Your task to perform on an android device: change alarm snooze length Image 0: 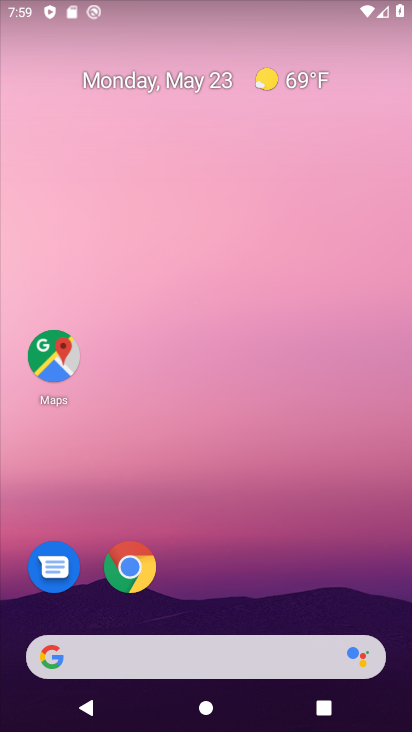
Step 0: drag from (228, 640) to (259, 2)
Your task to perform on an android device: change alarm snooze length Image 1: 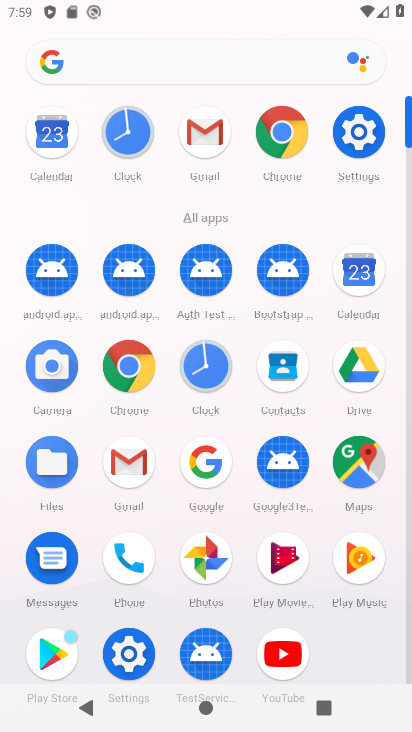
Step 1: click (209, 376)
Your task to perform on an android device: change alarm snooze length Image 2: 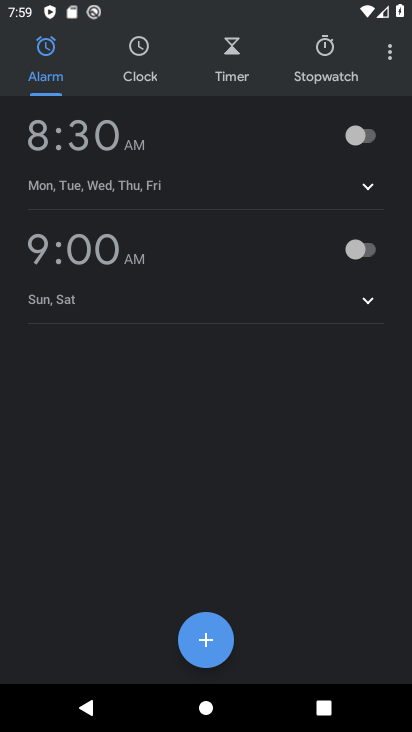
Step 2: click (387, 50)
Your task to perform on an android device: change alarm snooze length Image 3: 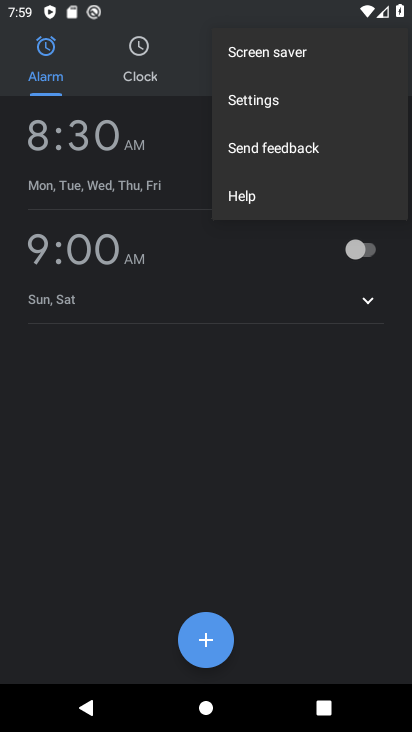
Step 3: click (267, 104)
Your task to perform on an android device: change alarm snooze length Image 4: 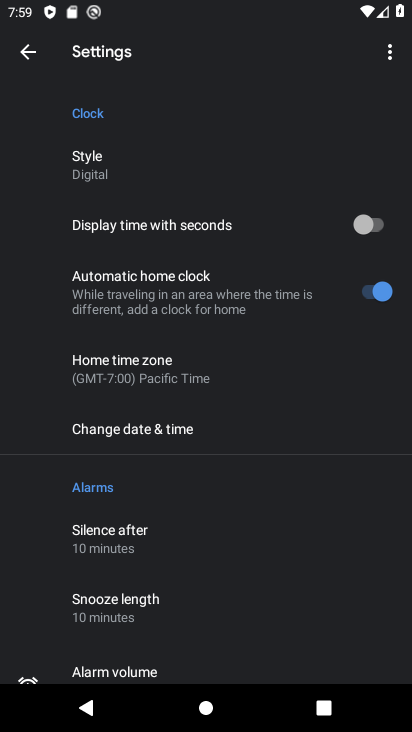
Step 4: drag from (129, 562) to (129, 431)
Your task to perform on an android device: change alarm snooze length Image 5: 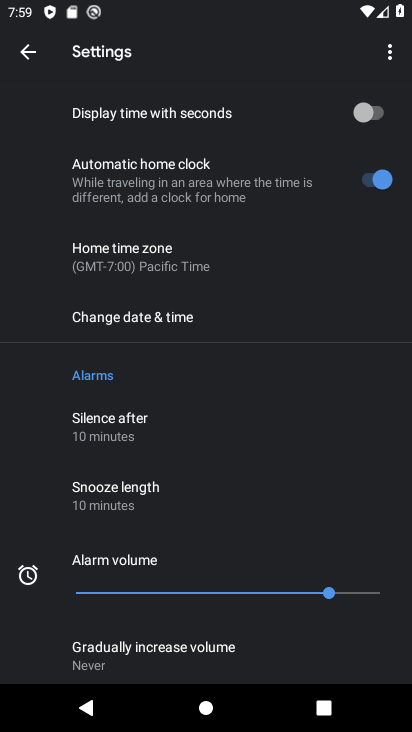
Step 5: click (123, 503)
Your task to perform on an android device: change alarm snooze length Image 6: 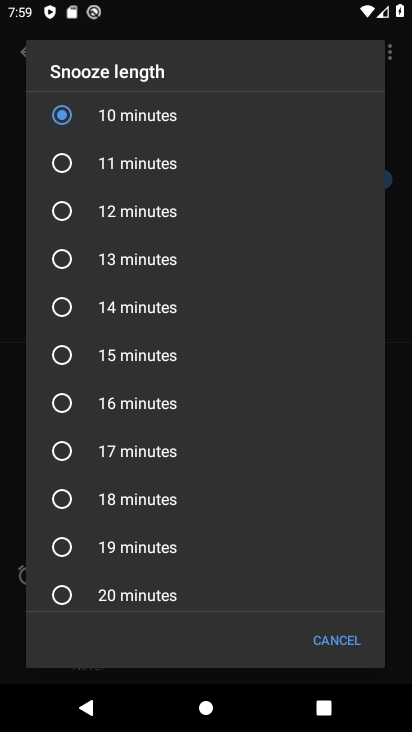
Step 6: click (117, 457)
Your task to perform on an android device: change alarm snooze length Image 7: 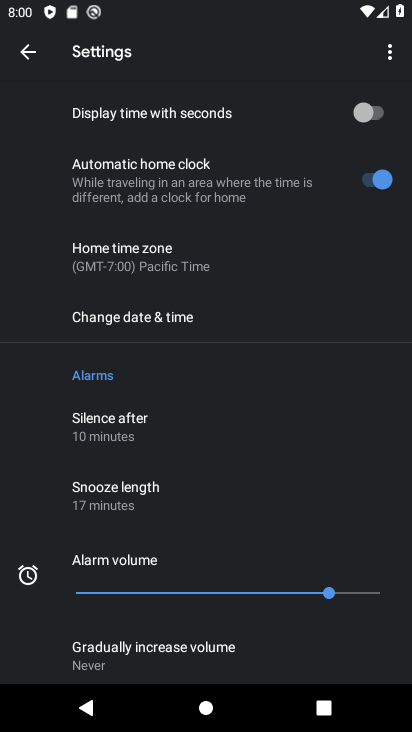
Step 7: task complete